Your task to perform on an android device: Find coffee shops on Maps Image 0: 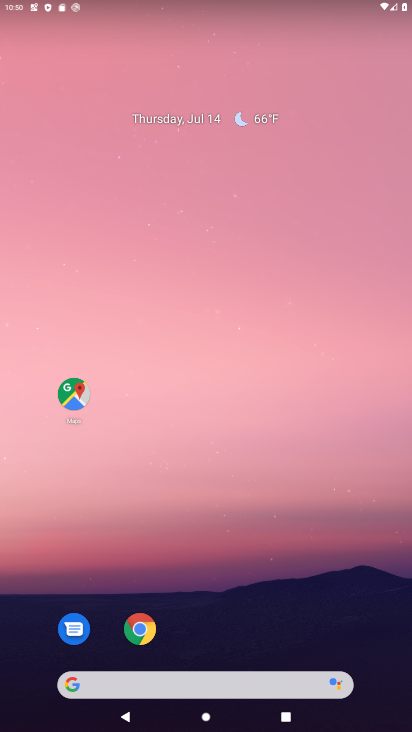
Step 0: press home button
Your task to perform on an android device: Find coffee shops on Maps Image 1: 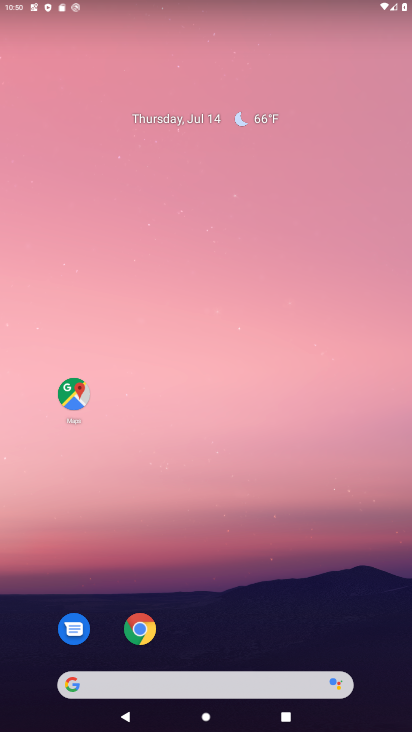
Step 1: click (72, 396)
Your task to perform on an android device: Find coffee shops on Maps Image 2: 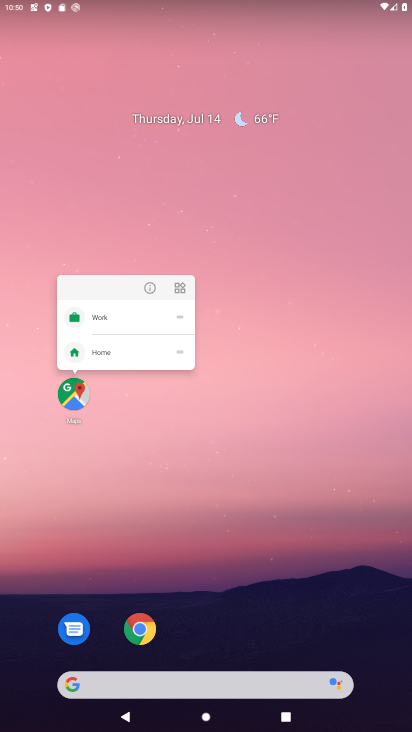
Step 2: click (78, 392)
Your task to perform on an android device: Find coffee shops on Maps Image 3: 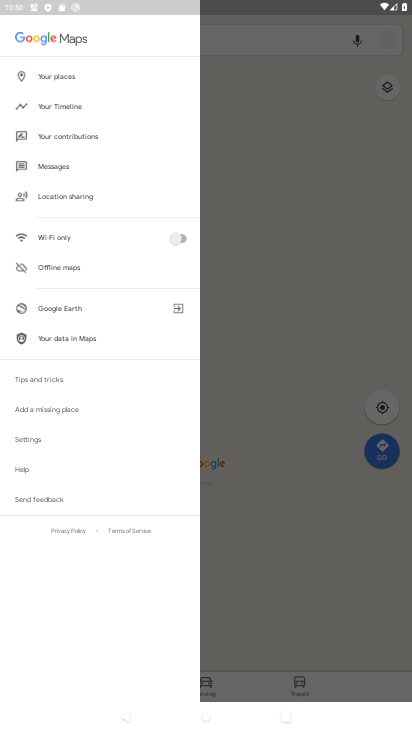
Step 3: click (246, 46)
Your task to perform on an android device: Find coffee shops on Maps Image 4: 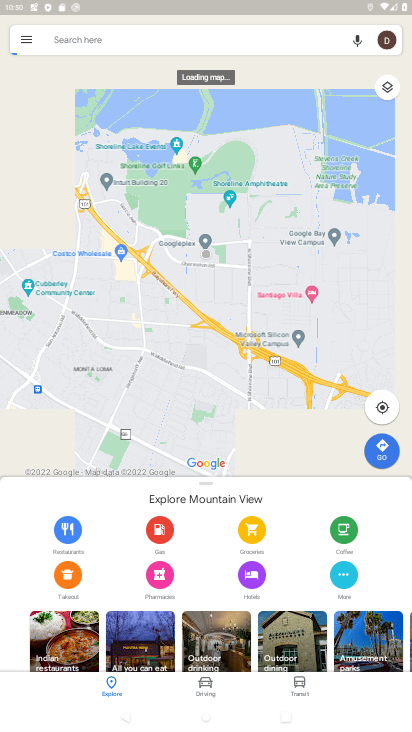
Step 4: type "coffee shops"
Your task to perform on an android device: Find coffee shops on Maps Image 5: 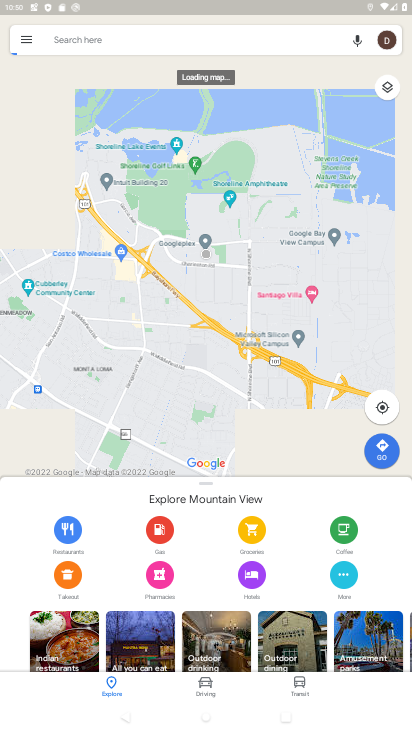
Step 5: click (118, 33)
Your task to perform on an android device: Find coffee shops on Maps Image 6: 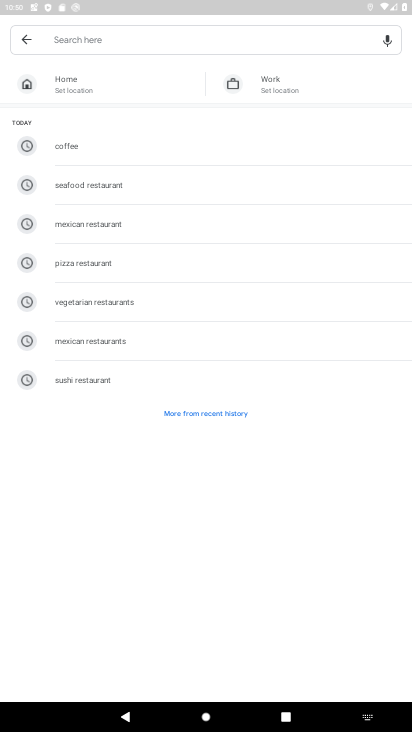
Step 6: click (68, 38)
Your task to perform on an android device: Find coffee shops on Maps Image 7: 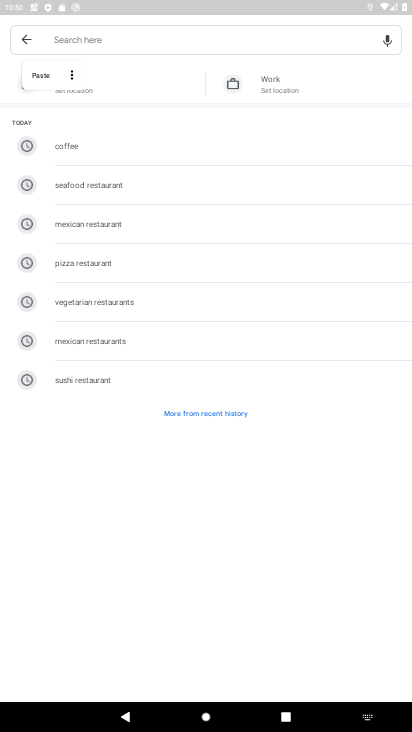
Step 7: type "coffee shops"
Your task to perform on an android device: Find coffee shops on Maps Image 8: 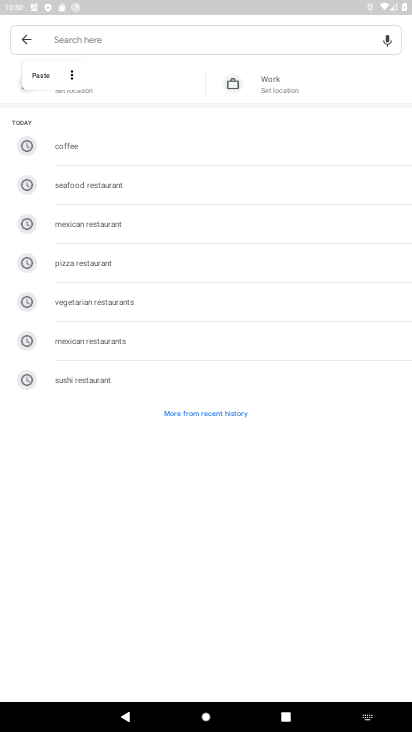
Step 8: click (81, 45)
Your task to perform on an android device: Find coffee shops on Maps Image 9: 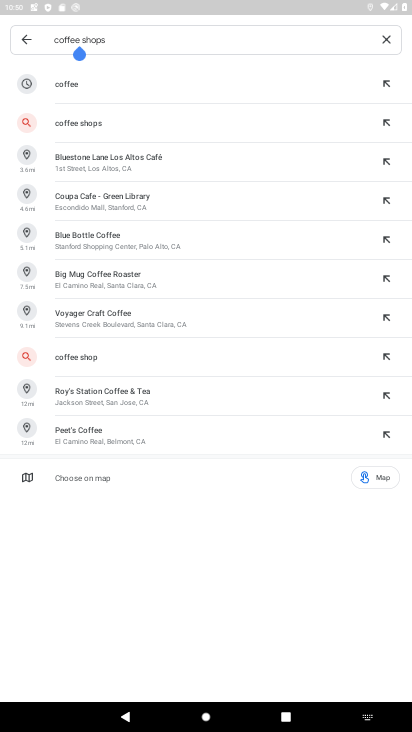
Step 9: press enter
Your task to perform on an android device: Find coffee shops on Maps Image 10: 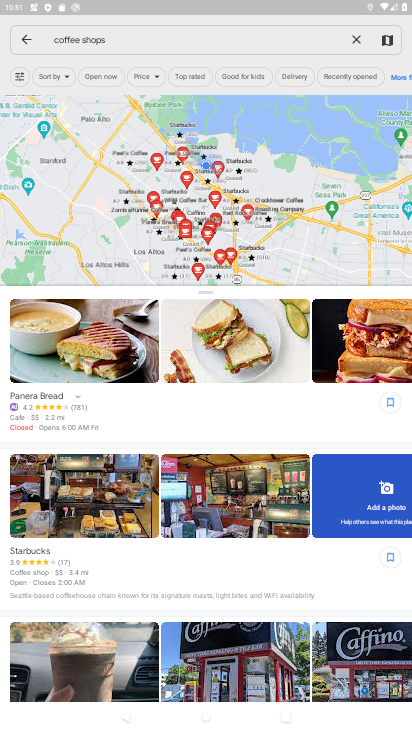
Step 10: task complete